Your task to perform on an android device: Open the Play Movies app and select the watchlist tab. Image 0: 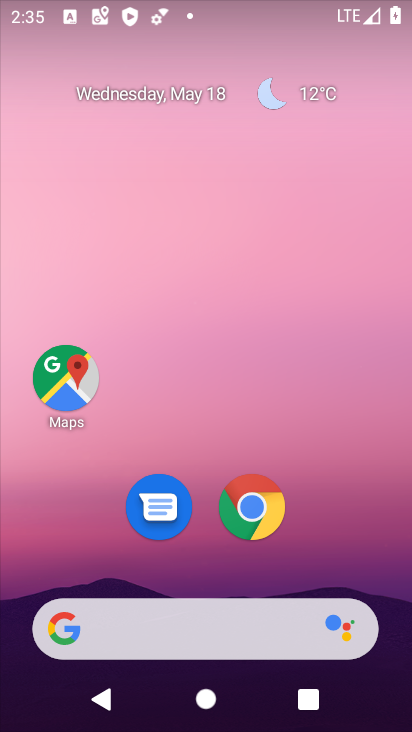
Step 0: drag from (386, 574) to (390, 130)
Your task to perform on an android device: Open the Play Movies app and select the watchlist tab. Image 1: 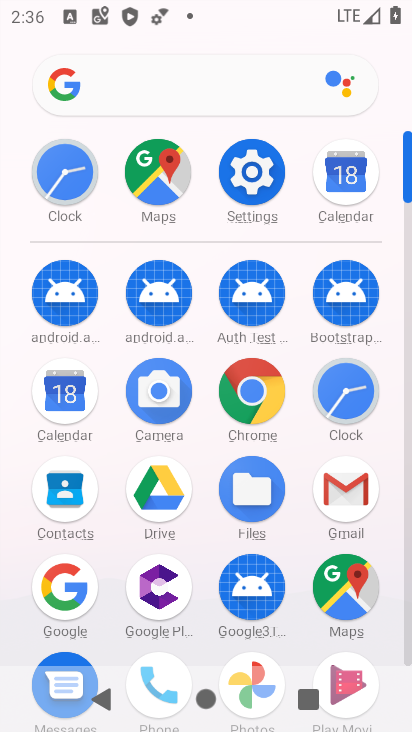
Step 1: click (408, 643)
Your task to perform on an android device: Open the Play Movies app and select the watchlist tab. Image 2: 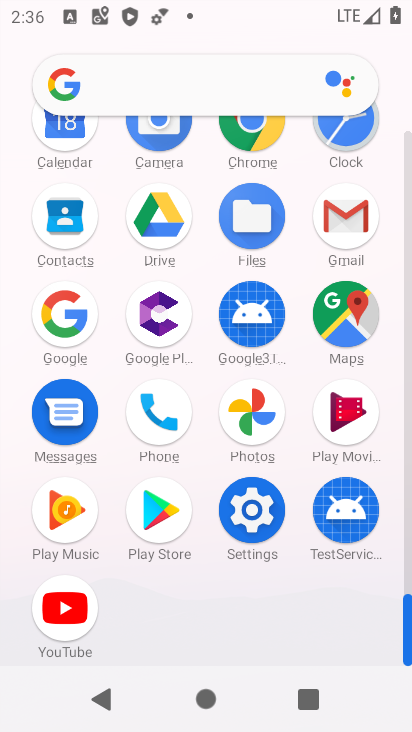
Step 2: click (349, 413)
Your task to perform on an android device: Open the Play Movies app and select the watchlist tab. Image 3: 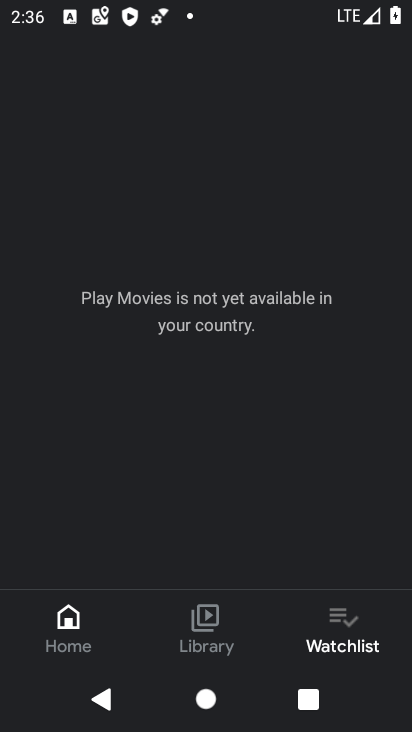
Step 3: click (340, 624)
Your task to perform on an android device: Open the Play Movies app and select the watchlist tab. Image 4: 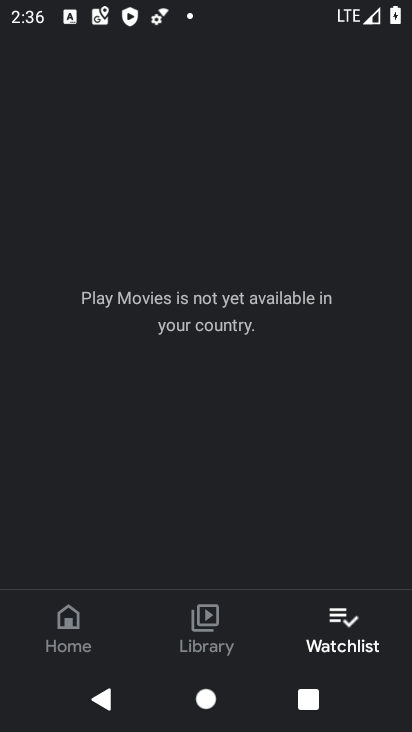
Step 4: task complete